Your task to perform on an android device: add a label to a message in the gmail app Image 0: 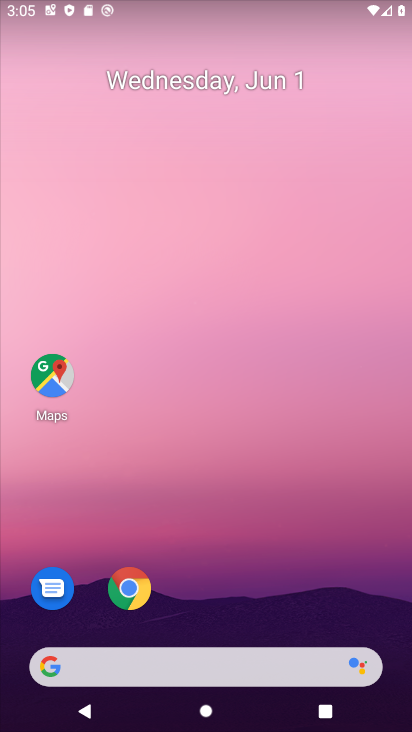
Step 0: drag from (298, 546) to (256, 182)
Your task to perform on an android device: add a label to a message in the gmail app Image 1: 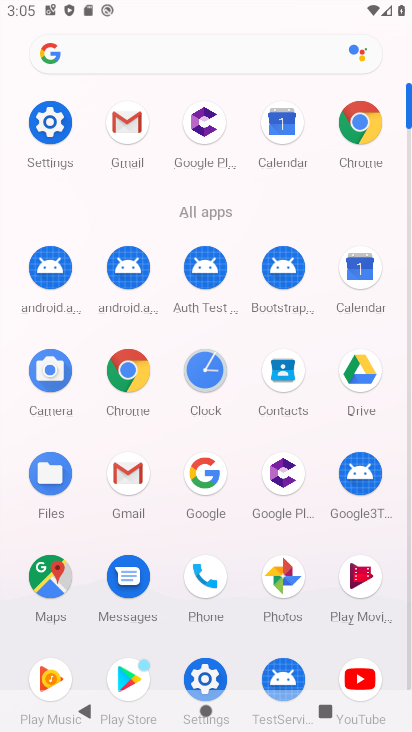
Step 1: click (126, 108)
Your task to perform on an android device: add a label to a message in the gmail app Image 2: 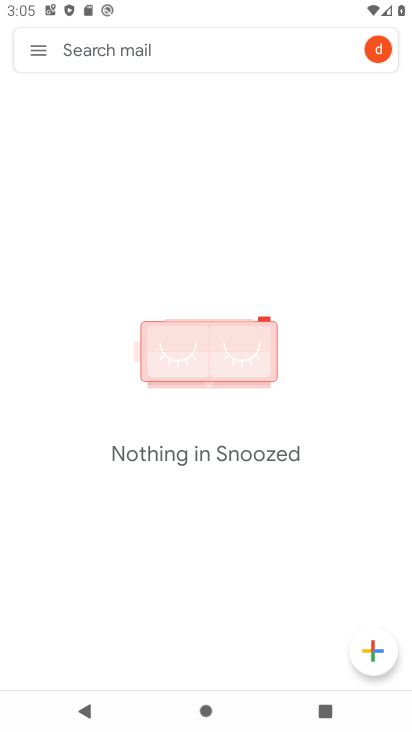
Step 2: click (43, 53)
Your task to perform on an android device: add a label to a message in the gmail app Image 3: 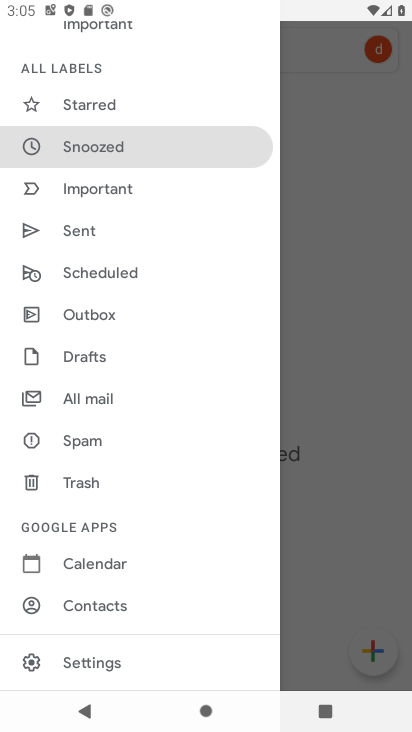
Step 3: click (112, 399)
Your task to perform on an android device: add a label to a message in the gmail app Image 4: 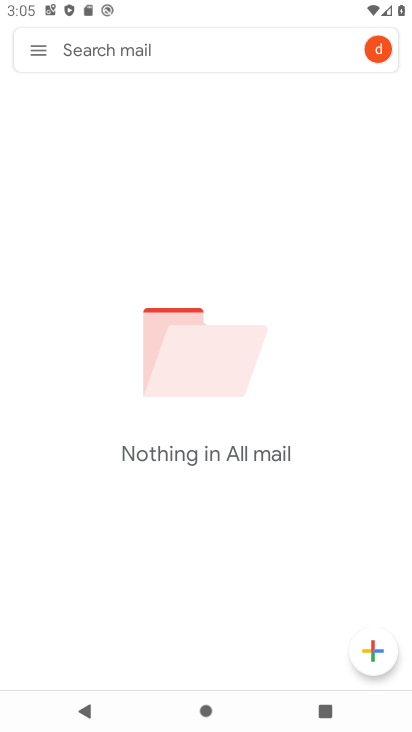
Step 4: task complete